Your task to perform on an android device: Open the stopwatch Image 0: 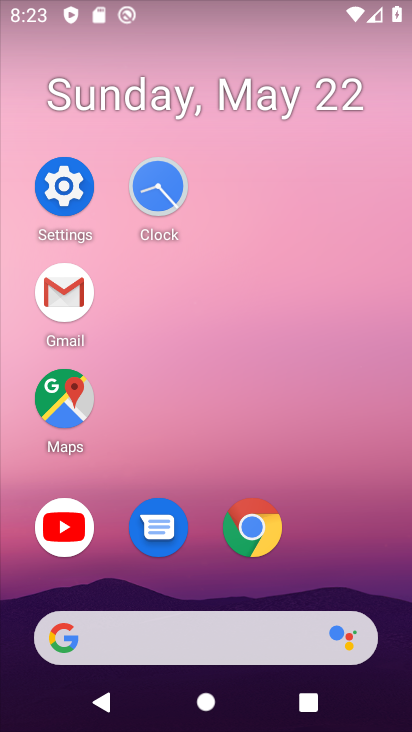
Step 0: click (154, 200)
Your task to perform on an android device: Open the stopwatch Image 1: 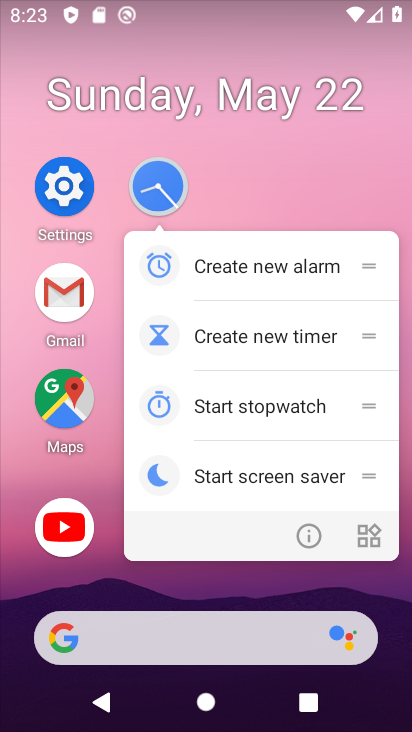
Step 1: click (171, 193)
Your task to perform on an android device: Open the stopwatch Image 2: 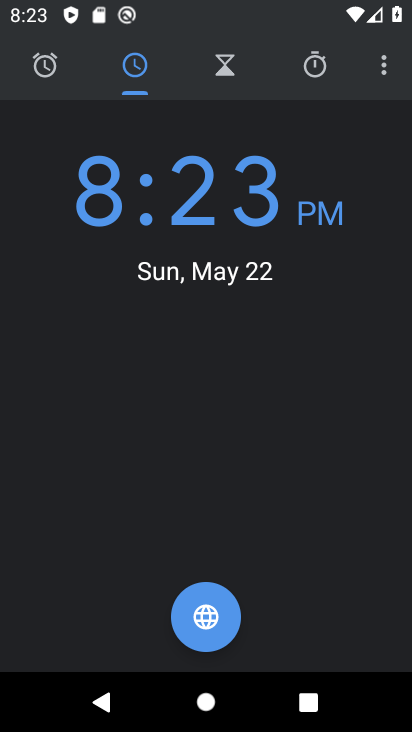
Step 2: click (311, 78)
Your task to perform on an android device: Open the stopwatch Image 3: 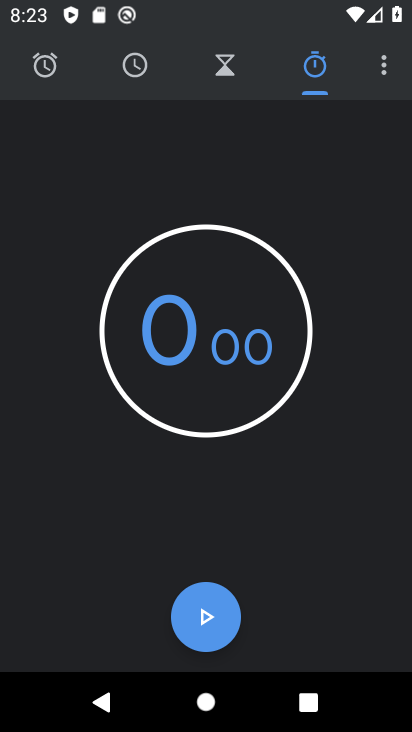
Step 3: task complete